Your task to perform on an android device: Show me popular videos on Youtube Image 0: 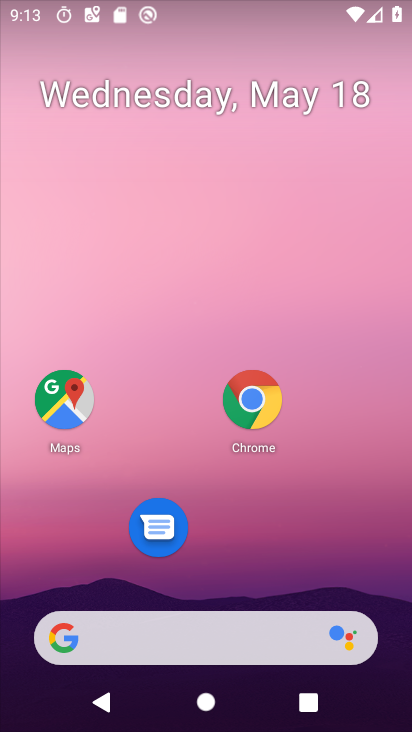
Step 0: drag from (241, 553) to (193, 146)
Your task to perform on an android device: Show me popular videos on Youtube Image 1: 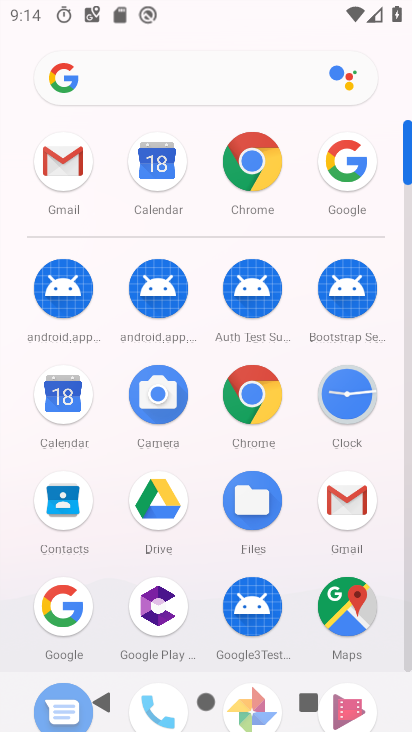
Step 1: drag from (285, 653) to (299, 251)
Your task to perform on an android device: Show me popular videos on Youtube Image 2: 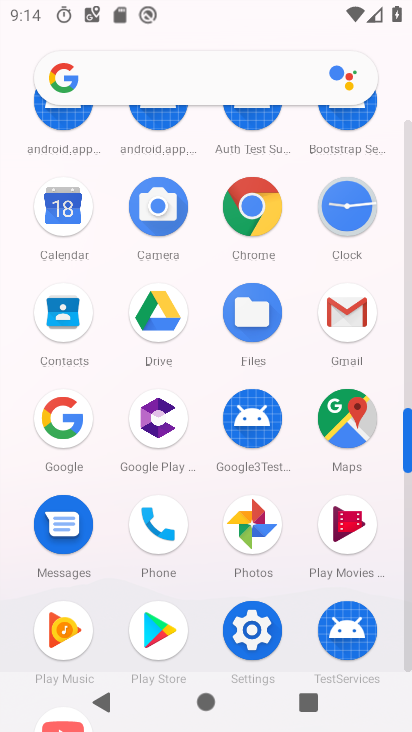
Step 2: drag from (268, 592) to (244, 240)
Your task to perform on an android device: Show me popular videos on Youtube Image 3: 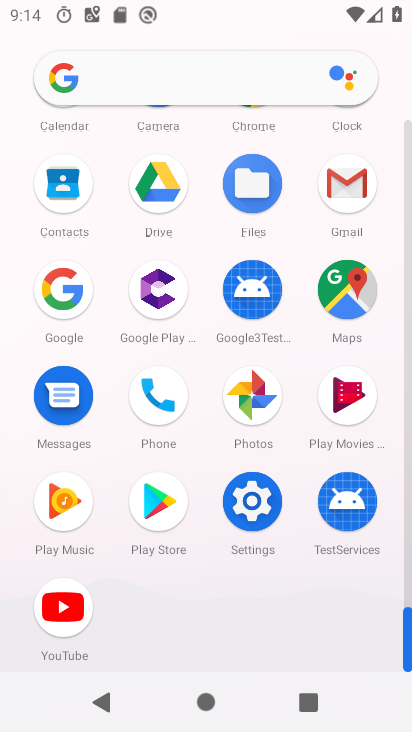
Step 3: click (73, 608)
Your task to perform on an android device: Show me popular videos on Youtube Image 4: 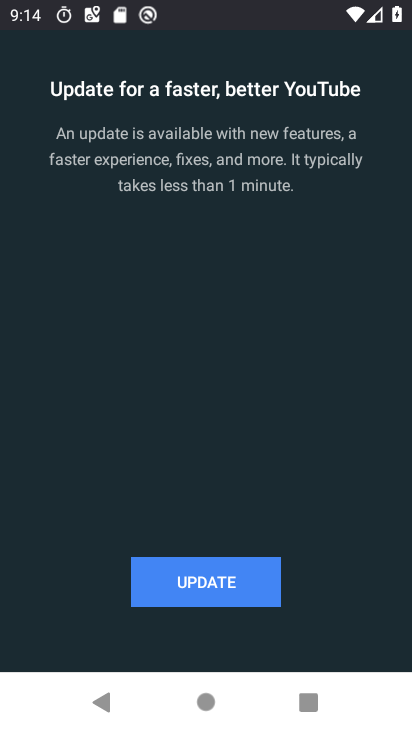
Step 4: click (177, 585)
Your task to perform on an android device: Show me popular videos on Youtube Image 5: 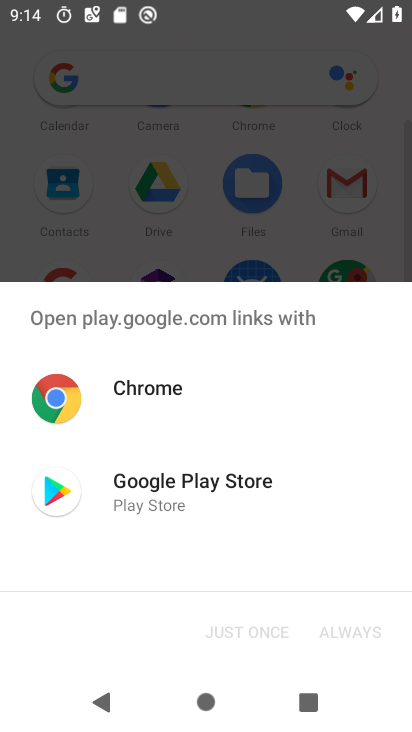
Step 5: click (147, 477)
Your task to perform on an android device: Show me popular videos on Youtube Image 6: 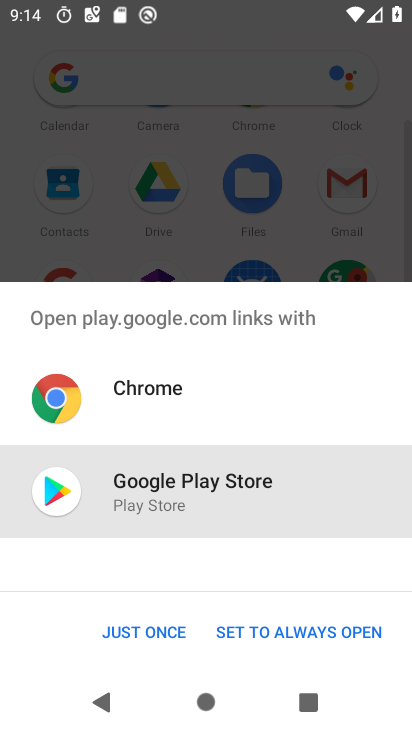
Step 6: click (265, 639)
Your task to perform on an android device: Show me popular videos on Youtube Image 7: 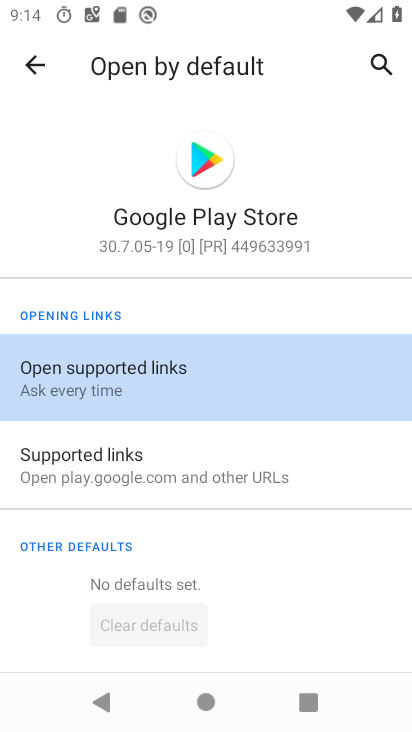
Step 7: click (102, 386)
Your task to perform on an android device: Show me popular videos on Youtube Image 8: 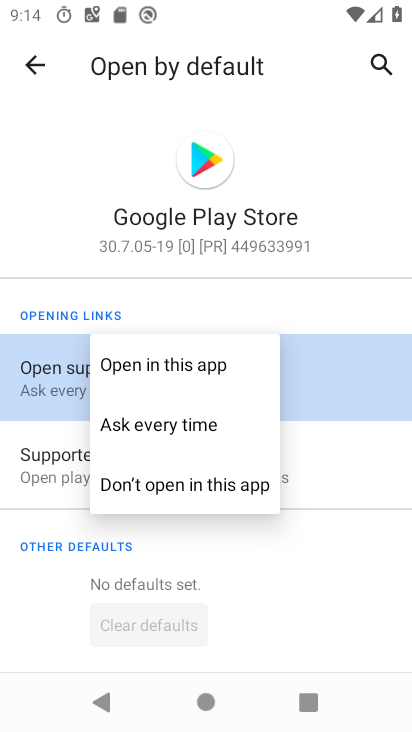
Step 8: click (166, 363)
Your task to perform on an android device: Show me popular videos on Youtube Image 9: 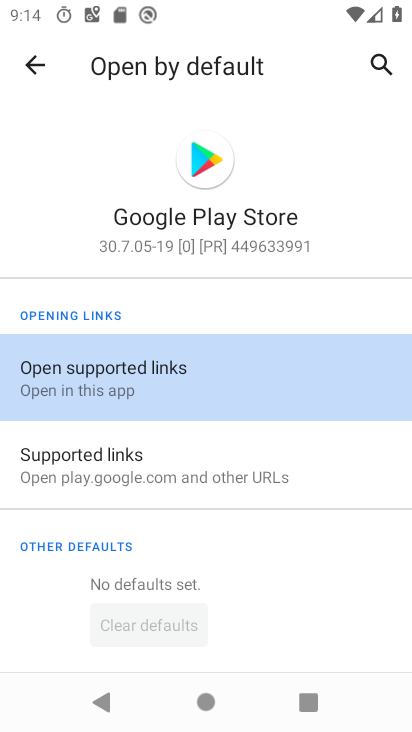
Step 9: click (31, 65)
Your task to perform on an android device: Show me popular videos on Youtube Image 10: 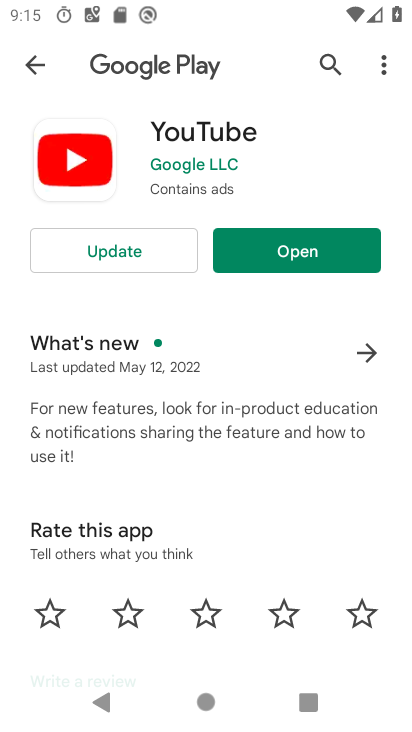
Step 10: click (170, 248)
Your task to perform on an android device: Show me popular videos on Youtube Image 11: 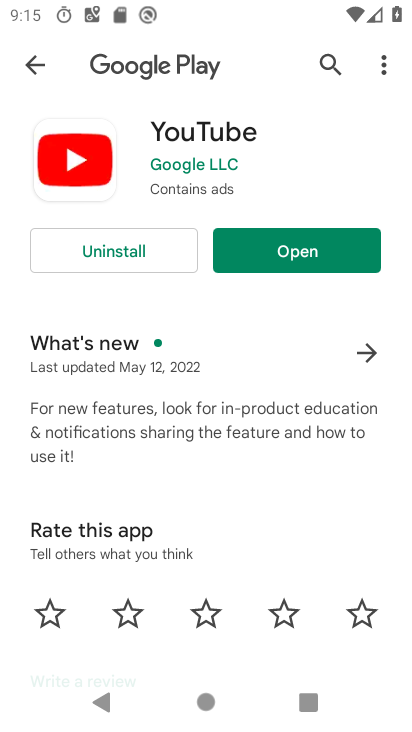
Step 11: click (271, 260)
Your task to perform on an android device: Show me popular videos on Youtube Image 12: 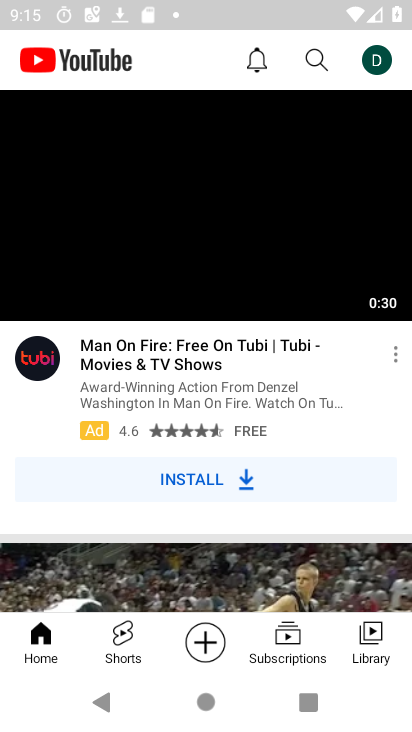
Step 12: task complete